Your task to perform on an android device: Add "razer nari" to the cart on ebay, then select checkout. Image 0: 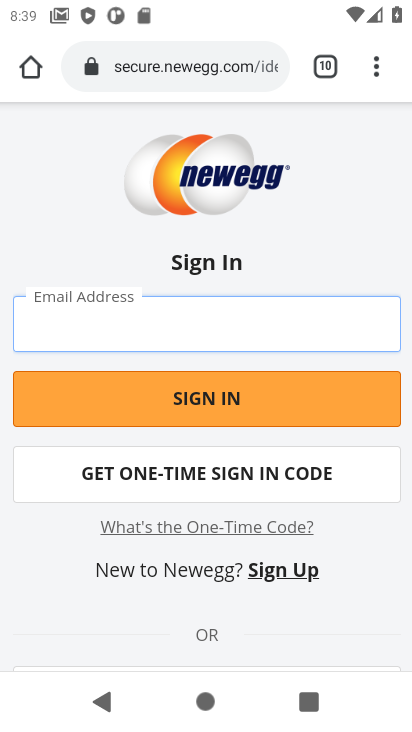
Step 0: click (172, 66)
Your task to perform on an android device: Add "razer nari" to the cart on ebay, then select checkout. Image 1: 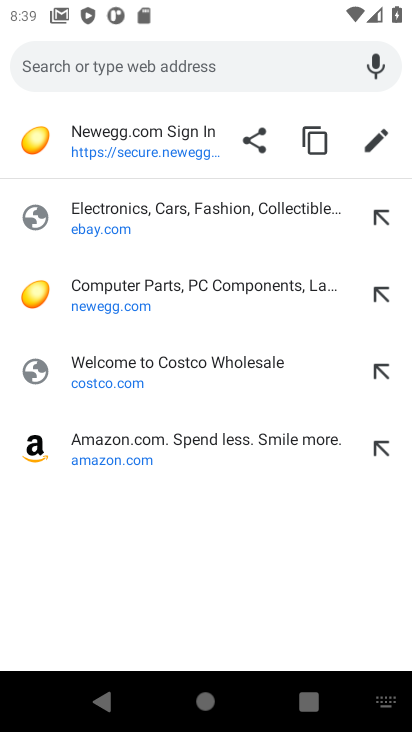
Step 1: click (90, 223)
Your task to perform on an android device: Add "razer nari" to the cart on ebay, then select checkout. Image 2: 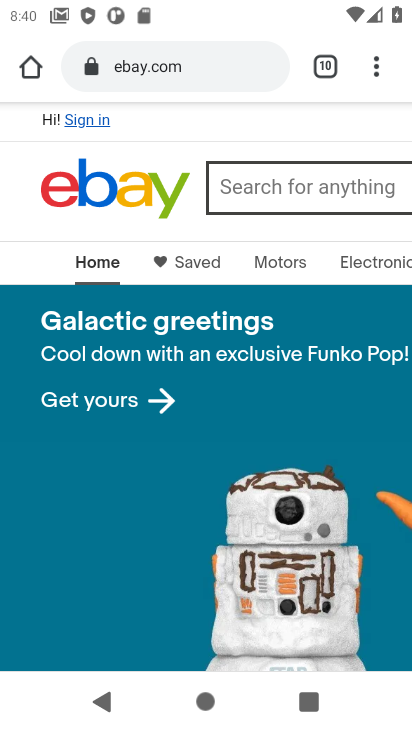
Step 2: click (267, 191)
Your task to perform on an android device: Add "razer nari" to the cart on ebay, then select checkout. Image 3: 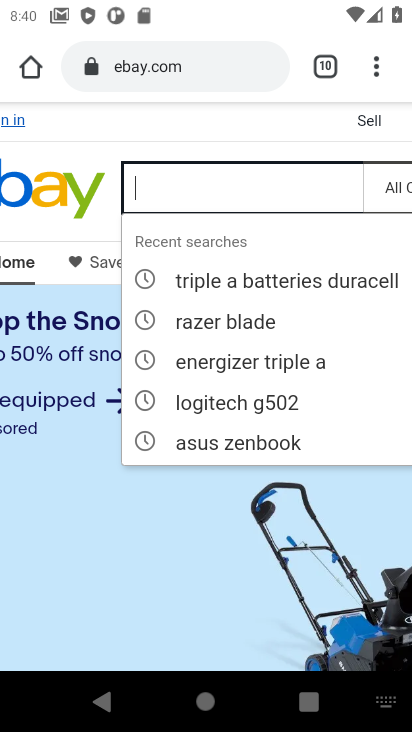
Step 3: type "razer nari"
Your task to perform on an android device: Add "razer nari" to the cart on ebay, then select checkout. Image 4: 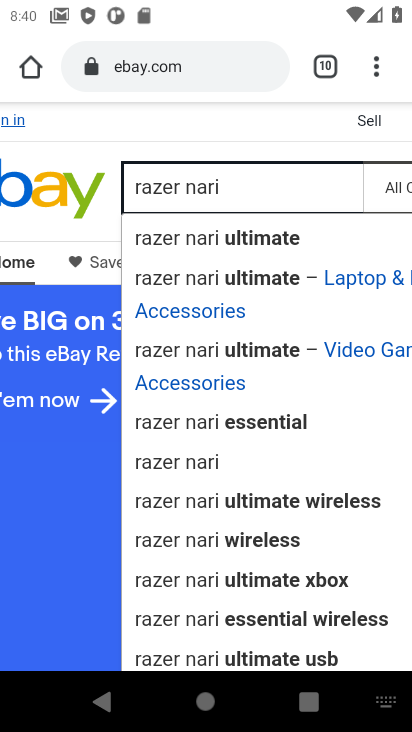
Step 4: click (205, 466)
Your task to perform on an android device: Add "razer nari" to the cart on ebay, then select checkout. Image 5: 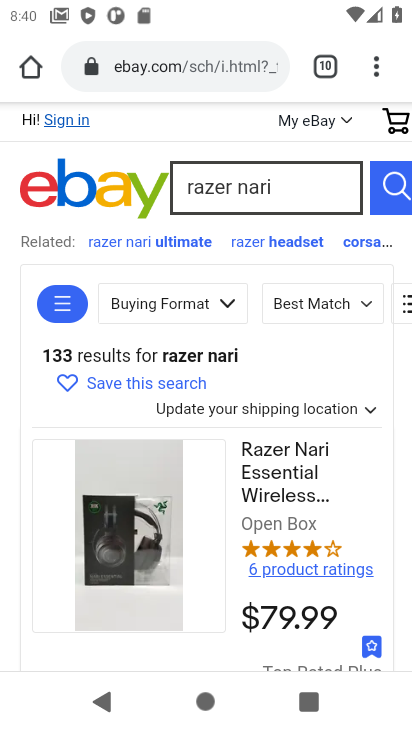
Step 5: drag from (310, 154) to (0, 246)
Your task to perform on an android device: Add "razer nari" to the cart on ebay, then select checkout. Image 6: 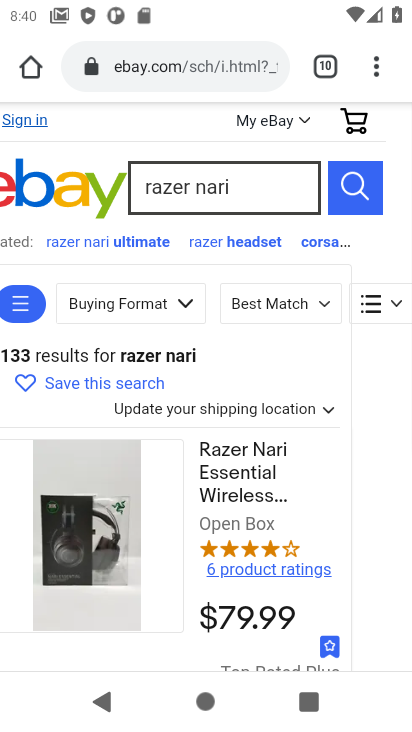
Step 6: drag from (160, 515) to (191, 237)
Your task to perform on an android device: Add "razer nari" to the cart on ebay, then select checkout. Image 7: 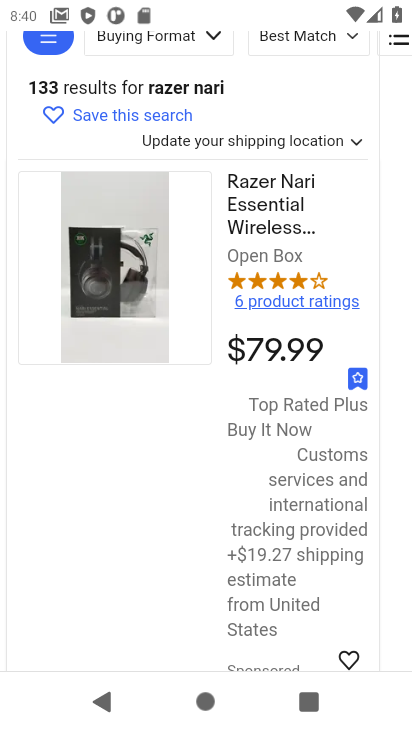
Step 7: click (242, 222)
Your task to perform on an android device: Add "razer nari" to the cart on ebay, then select checkout. Image 8: 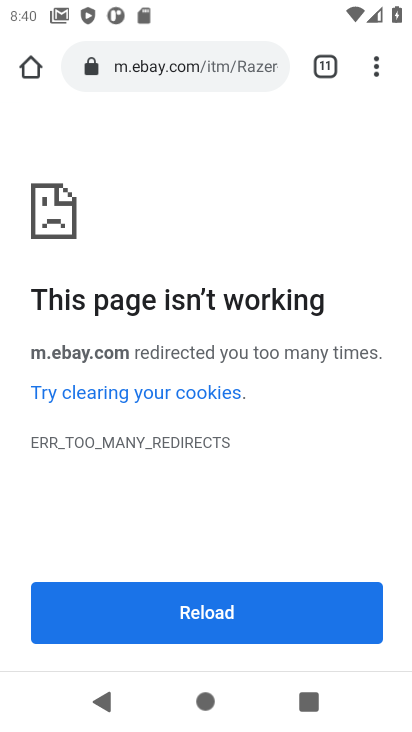
Step 8: task complete